Your task to perform on an android device: What's the weather today? Image 0: 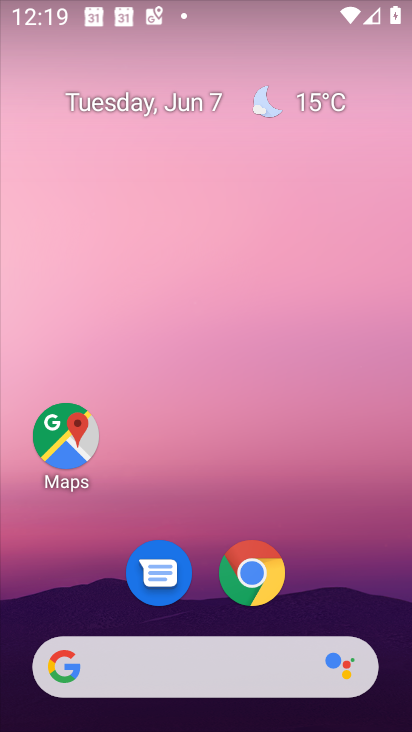
Step 0: click (224, 672)
Your task to perform on an android device: What's the weather today? Image 1: 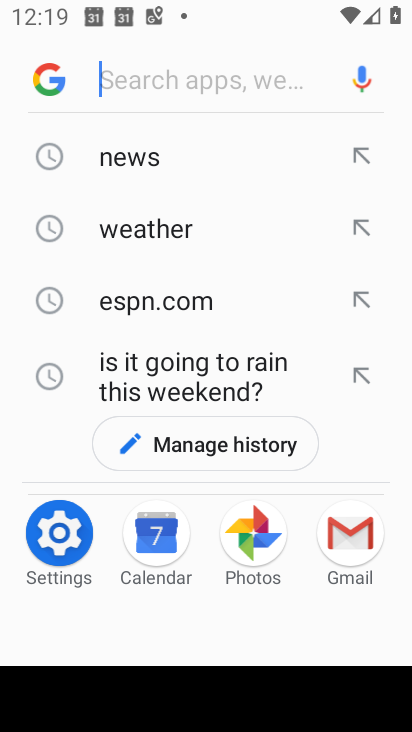
Step 1: type "weather today"
Your task to perform on an android device: What's the weather today? Image 2: 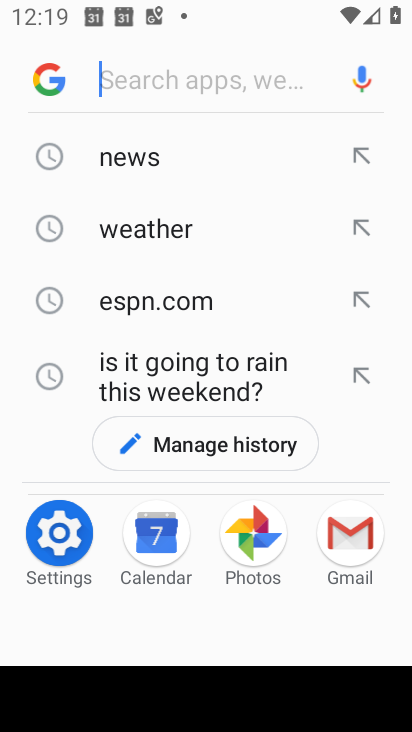
Step 2: click (193, 72)
Your task to perform on an android device: What's the weather today? Image 3: 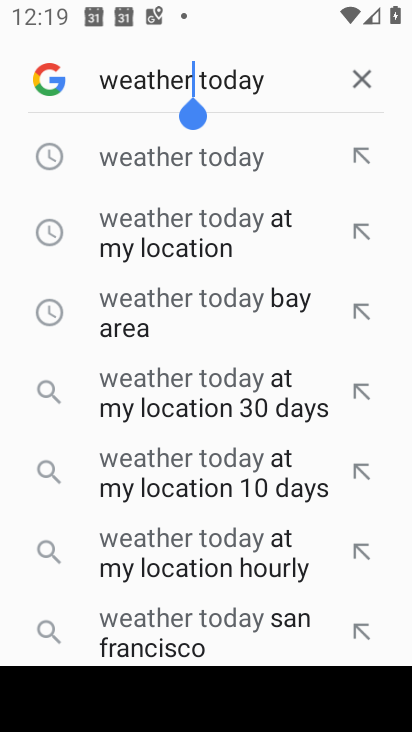
Step 3: click (212, 163)
Your task to perform on an android device: What's the weather today? Image 4: 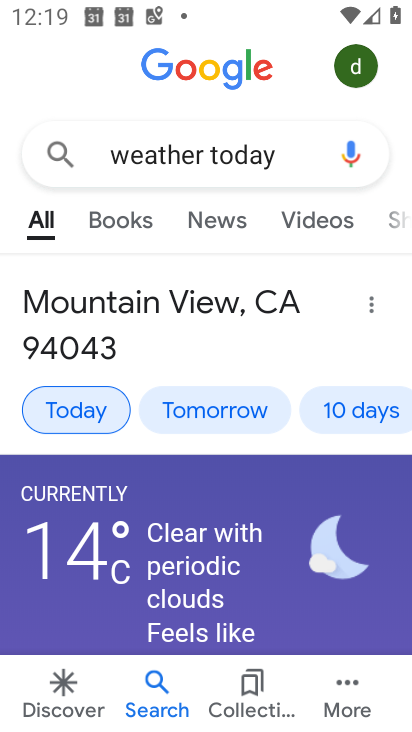
Step 4: task complete